Your task to perform on an android device: search for starred emails in the gmail app Image 0: 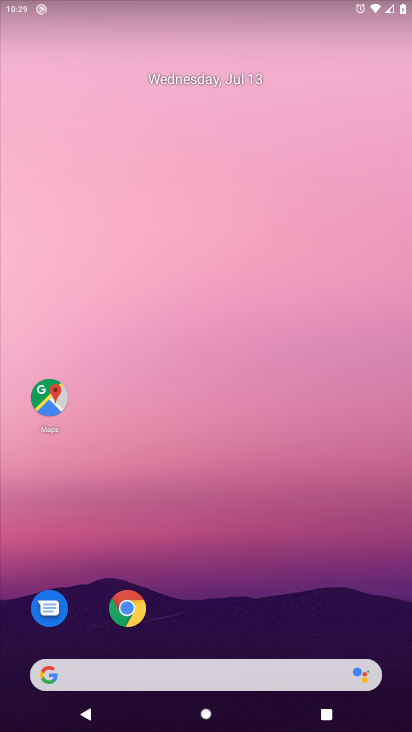
Step 0: drag from (50, 713) to (171, 110)
Your task to perform on an android device: search for starred emails in the gmail app Image 1: 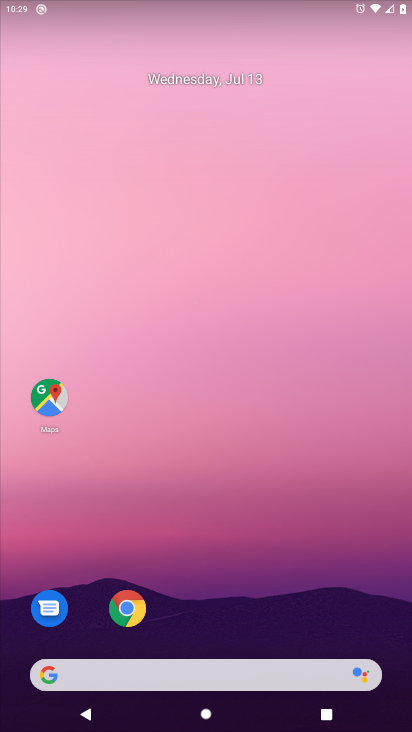
Step 1: drag from (39, 702) to (237, 47)
Your task to perform on an android device: search for starred emails in the gmail app Image 2: 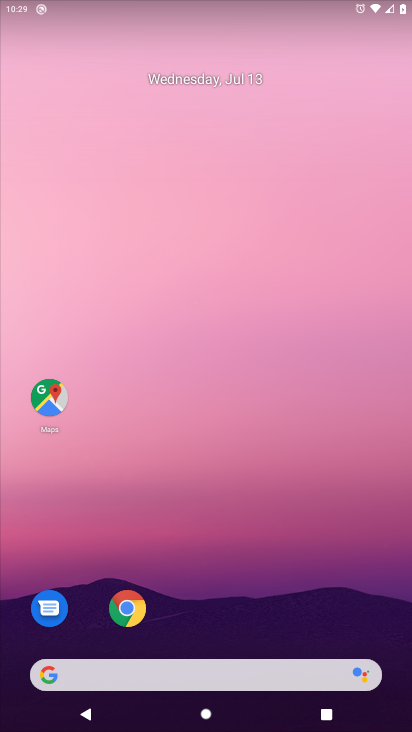
Step 2: drag from (73, 653) to (94, 166)
Your task to perform on an android device: search for starred emails in the gmail app Image 3: 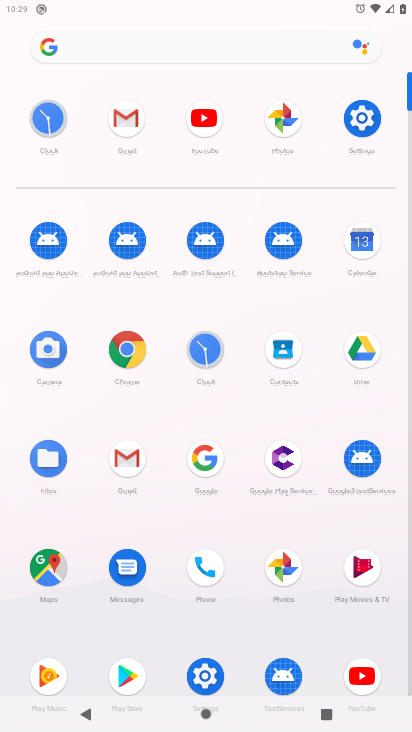
Step 3: click (121, 469)
Your task to perform on an android device: search for starred emails in the gmail app Image 4: 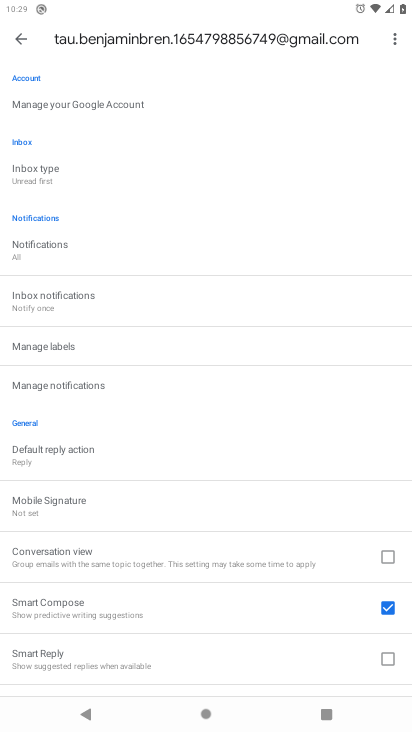
Step 4: click (15, 33)
Your task to perform on an android device: search for starred emails in the gmail app Image 5: 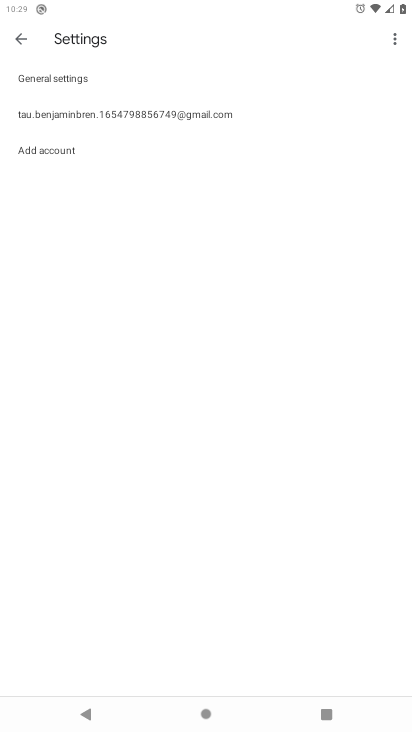
Step 5: click (21, 35)
Your task to perform on an android device: search for starred emails in the gmail app Image 6: 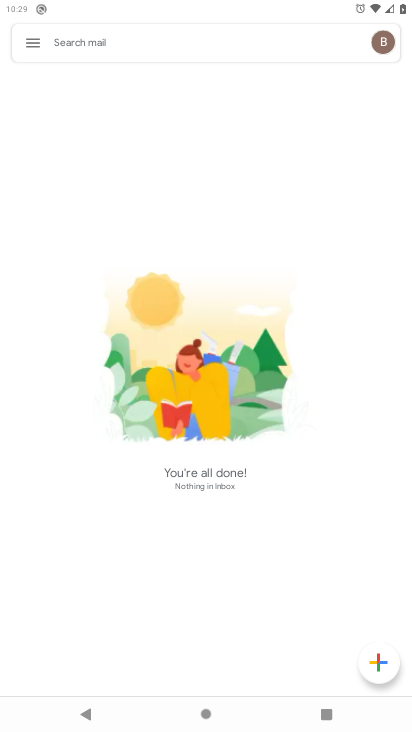
Step 6: click (32, 44)
Your task to perform on an android device: search for starred emails in the gmail app Image 7: 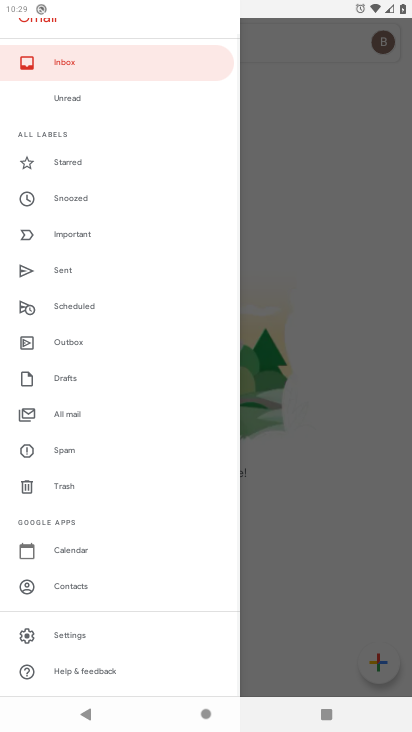
Step 7: click (110, 55)
Your task to perform on an android device: search for starred emails in the gmail app Image 8: 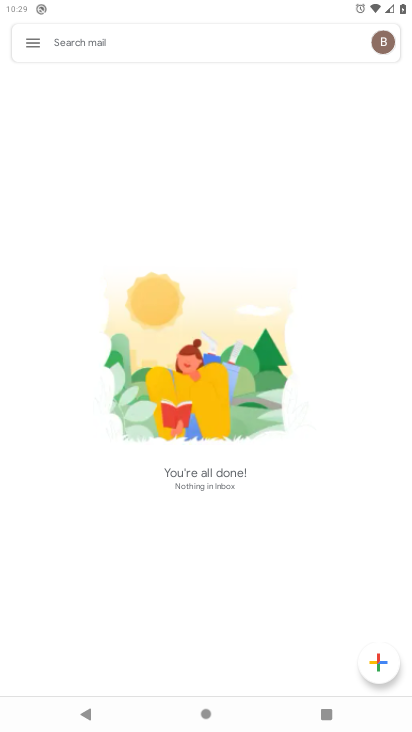
Step 8: click (40, 47)
Your task to perform on an android device: search for starred emails in the gmail app Image 9: 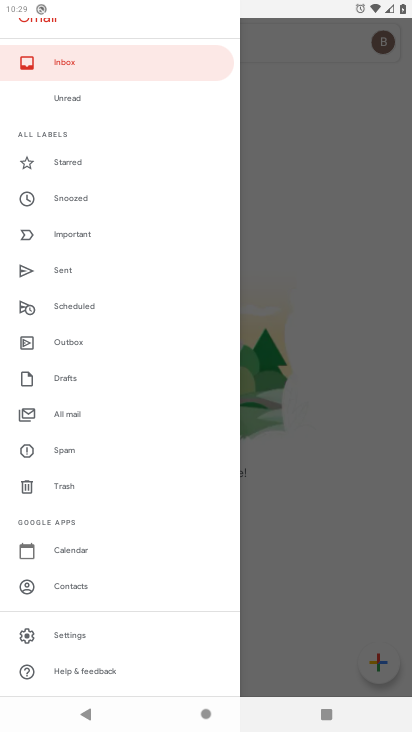
Step 9: click (69, 154)
Your task to perform on an android device: search for starred emails in the gmail app Image 10: 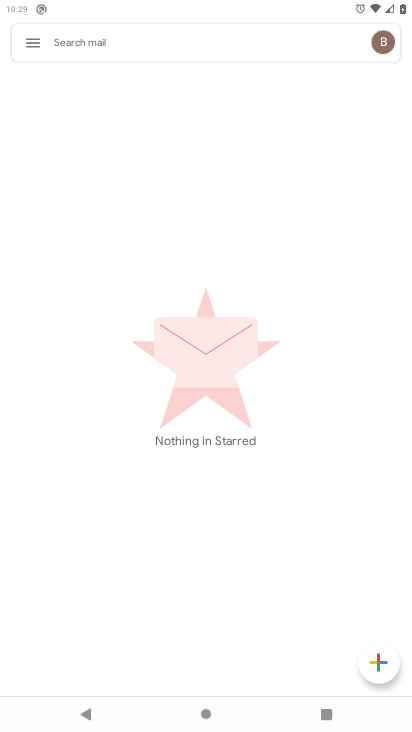
Step 10: task complete